Your task to perform on an android device: open a new tab in the chrome app Image 0: 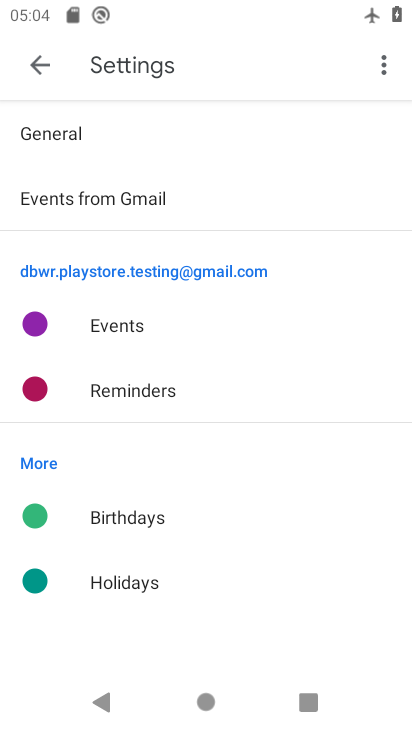
Step 0: press home button
Your task to perform on an android device: open a new tab in the chrome app Image 1: 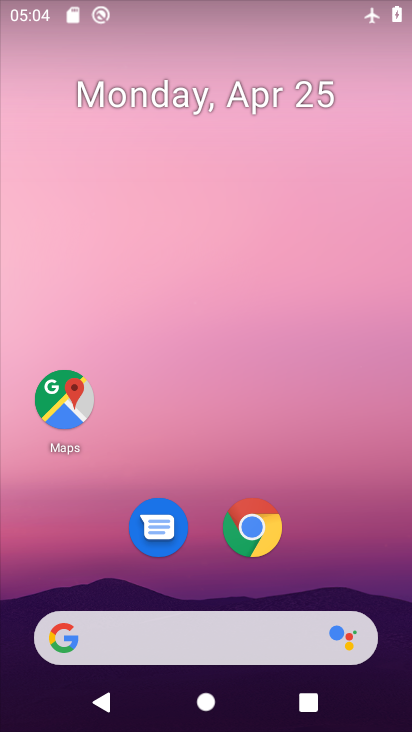
Step 1: click (247, 525)
Your task to perform on an android device: open a new tab in the chrome app Image 2: 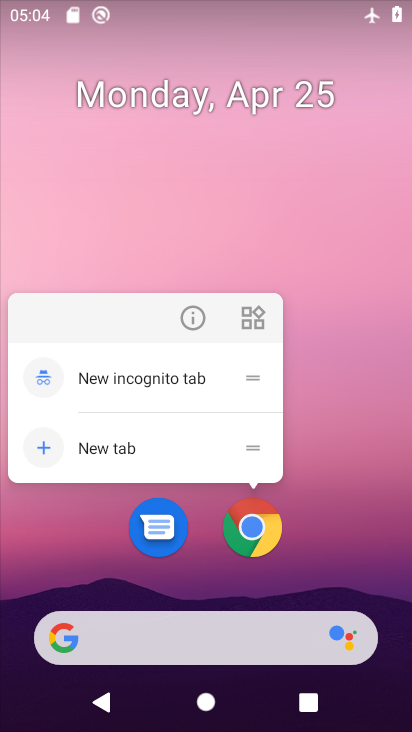
Step 2: click (251, 525)
Your task to perform on an android device: open a new tab in the chrome app Image 3: 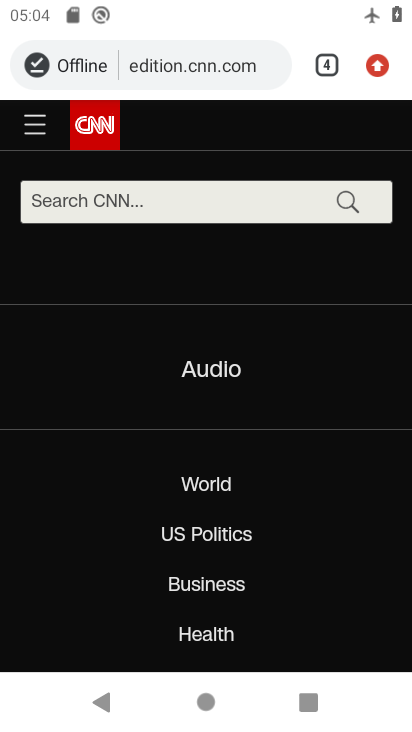
Step 3: click (375, 63)
Your task to perform on an android device: open a new tab in the chrome app Image 4: 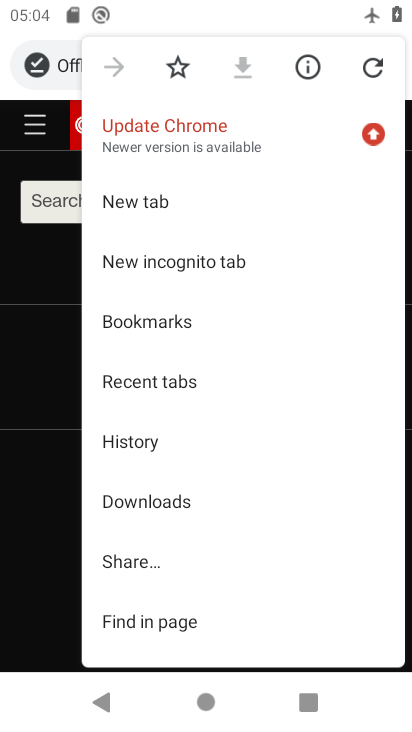
Step 4: click (143, 198)
Your task to perform on an android device: open a new tab in the chrome app Image 5: 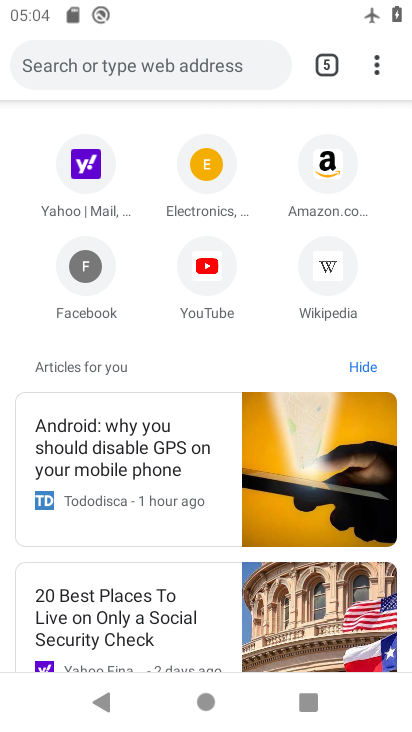
Step 5: task complete